Your task to perform on an android device: turn on translation in the chrome app Image 0: 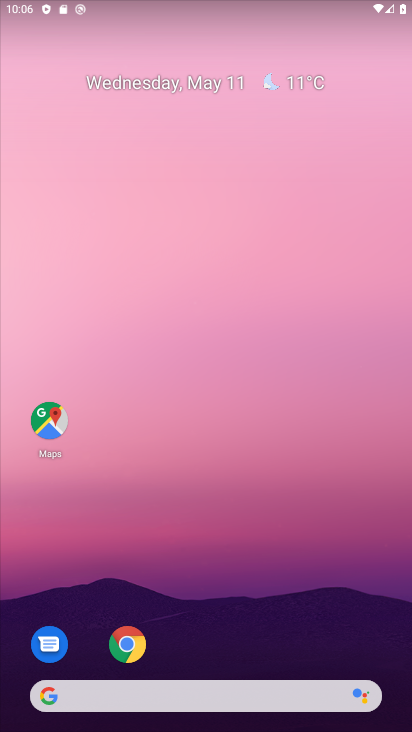
Step 0: click (125, 648)
Your task to perform on an android device: turn on translation in the chrome app Image 1: 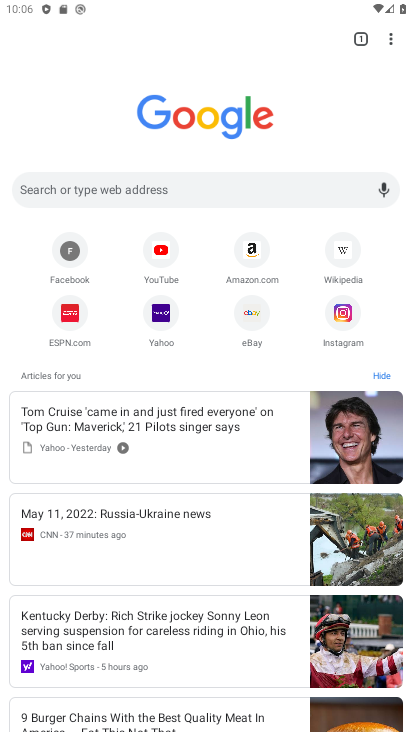
Step 1: drag from (393, 41) to (256, 327)
Your task to perform on an android device: turn on translation in the chrome app Image 2: 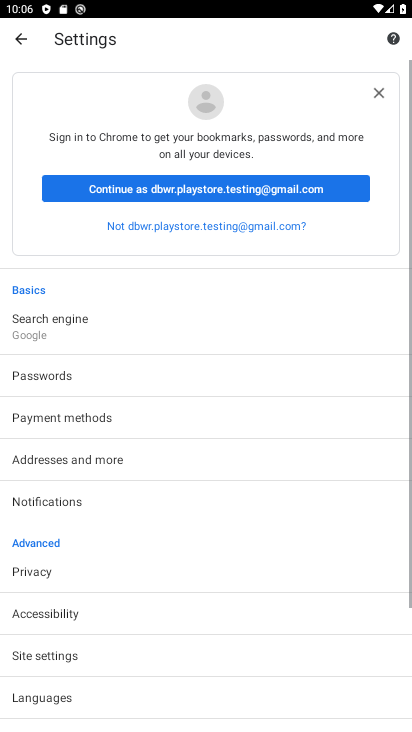
Step 2: drag from (132, 388) to (132, 290)
Your task to perform on an android device: turn on translation in the chrome app Image 3: 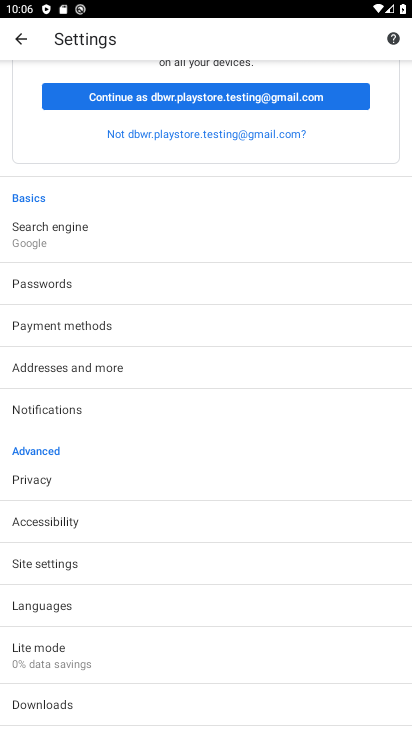
Step 3: click (74, 609)
Your task to perform on an android device: turn on translation in the chrome app Image 4: 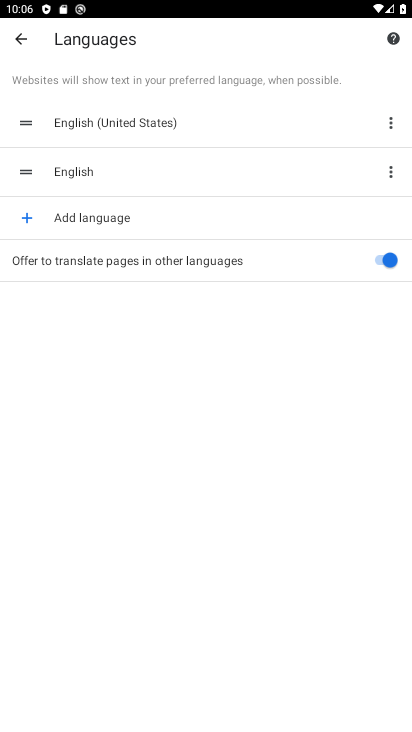
Step 4: task complete